Your task to perform on an android device: visit the assistant section in the google photos Image 0: 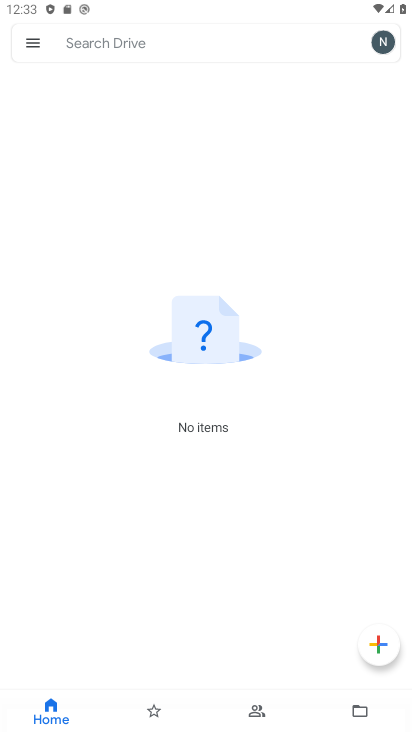
Step 0: press home button
Your task to perform on an android device: visit the assistant section in the google photos Image 1: 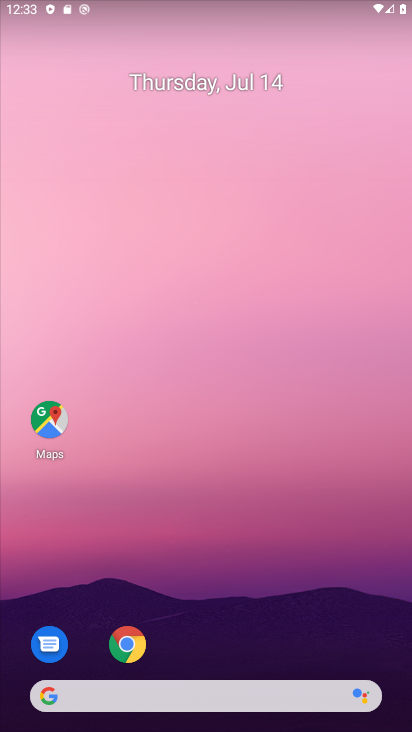
Step 1: drag from (310, 559) to (195, 81)
Your task to perform on an android device: visit the assistant section in the google photos Image 2: 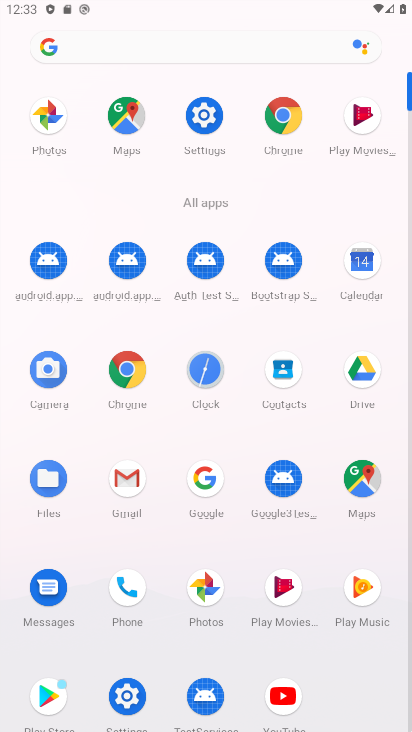
Step 2: click (202, 592)
Your task to perform on an android device: visit the assistant section in the google photos Image 3: 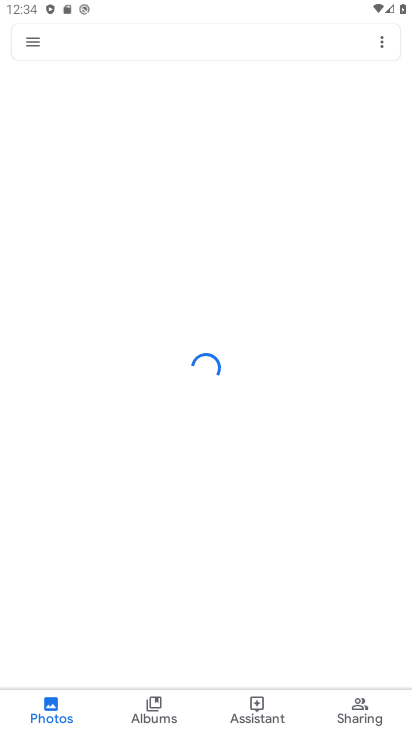
Step 3: click (261, 711)
Your task to perform on an android device: visit the assistant section in the google photos Image 4: 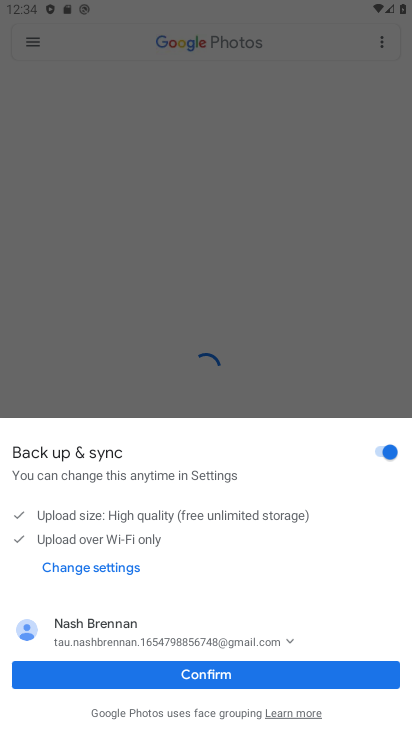
Step 4: click (251, 684)
Your task to perform on an android device: visit the assistant section in the google photos Image 5: 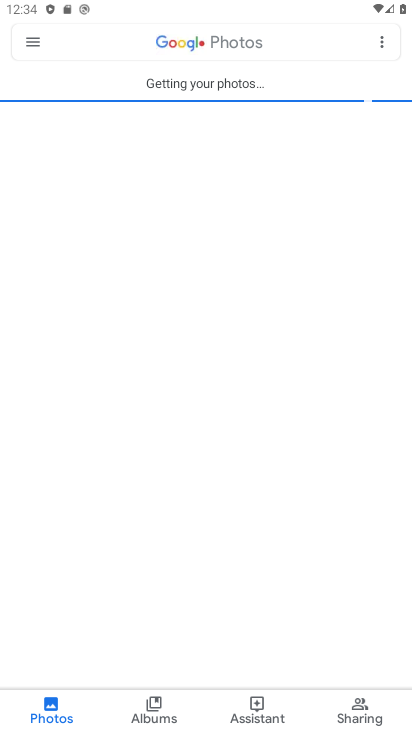
Step 5: click (257, 704)
Your task to perform on an android device: visit the assistant section in the google photos Image 6: 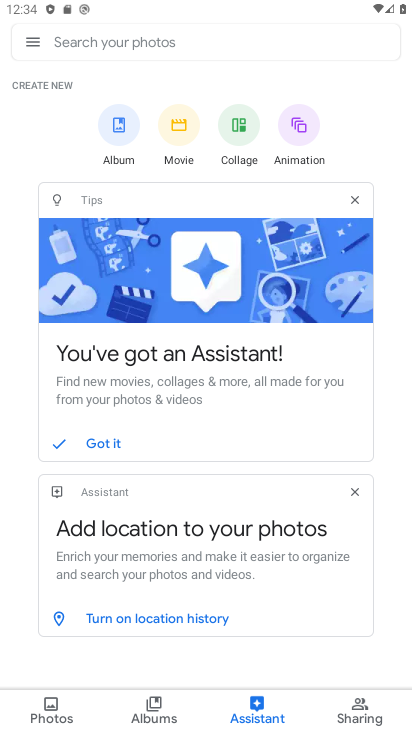
Step 6: task complete